Your task to perform on an android device: Add razer blade to the cart on bestbuy.com, then select checkout. Image 0: 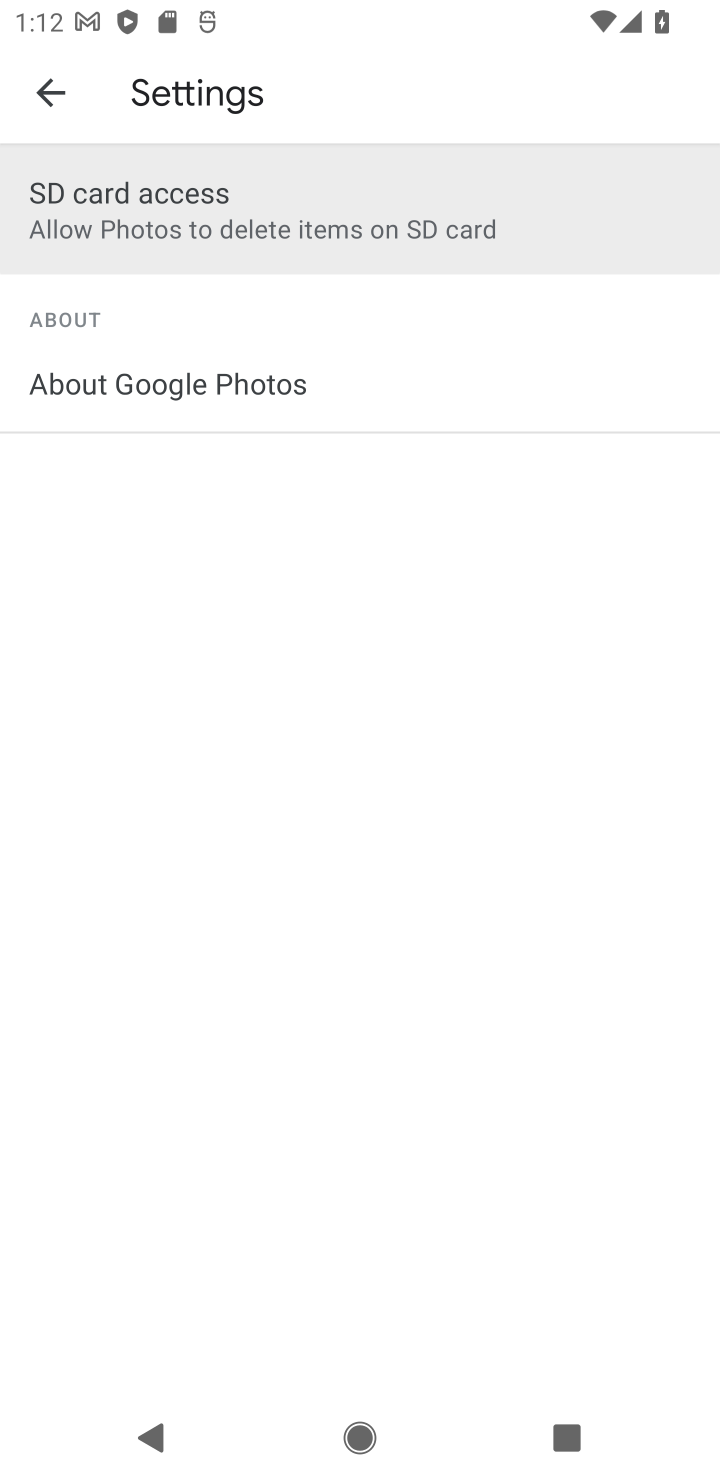
Step 0: press home button
Your task to perform on an android device: Add razer blade to the cart on bestbuy.com, then select checkout. Image 1: 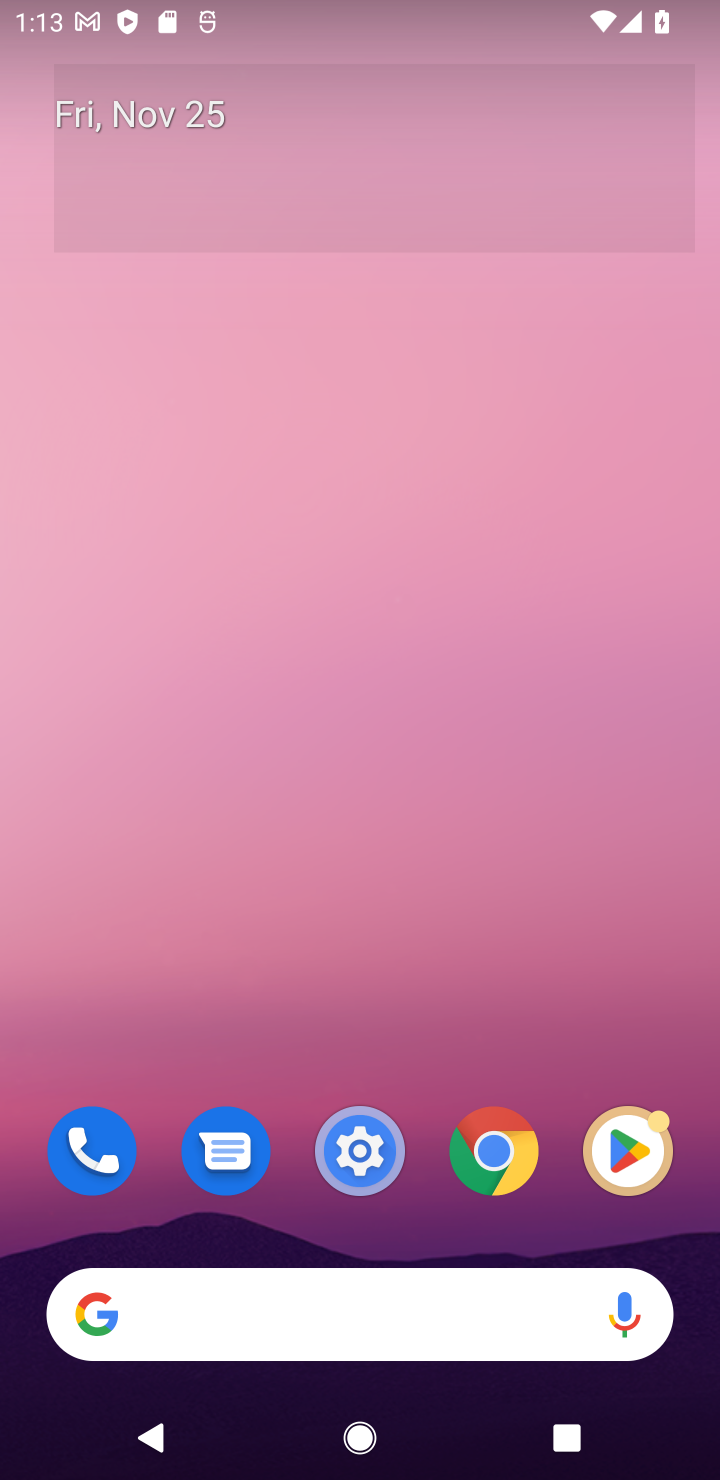
Step 1: click (351, 1311)
Your task to perform on an android device: Add razer blade to the cart on bestbuy.com, then select checkout. Image 2: 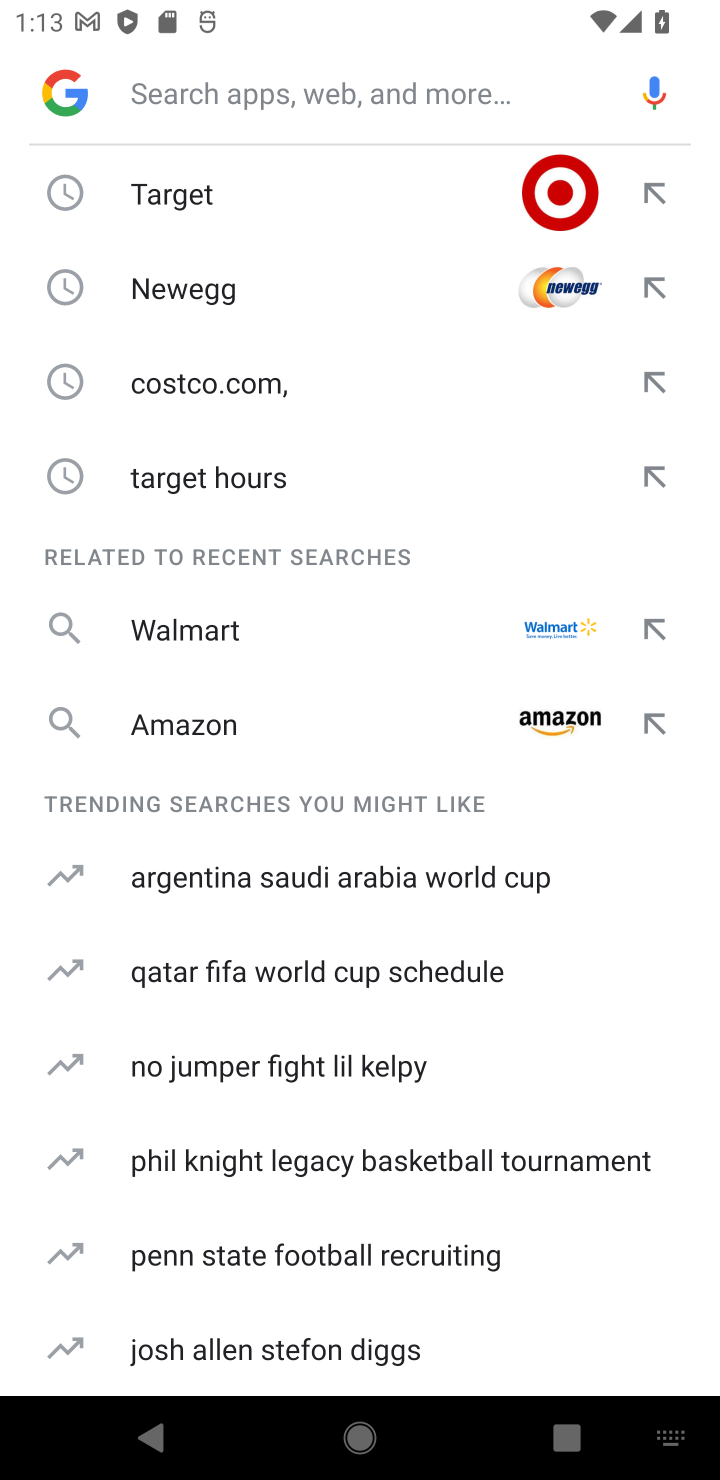
Step 2: type ""
Your task to perform on an android device: Add razer blade to the cart on bestbuy.com, then select checkout. Image 3: 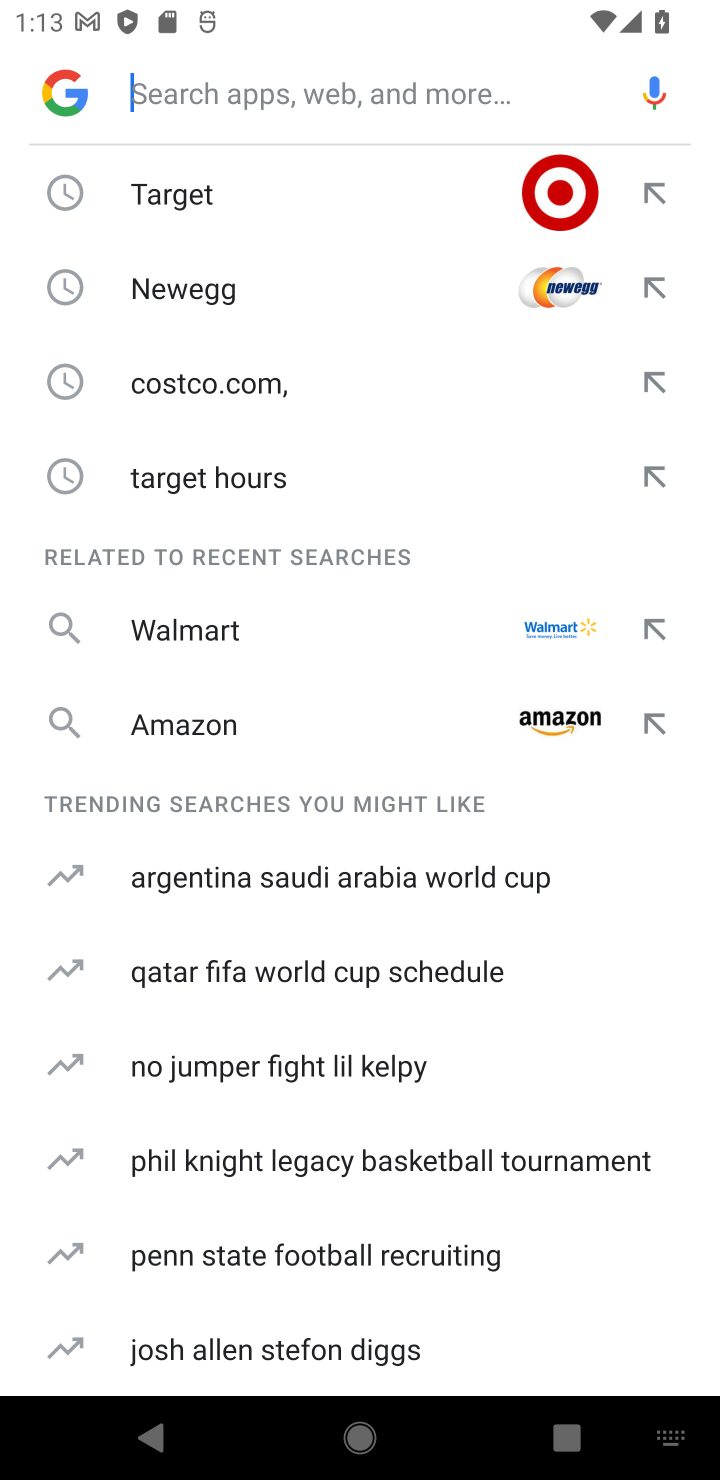
Step 3: type "bestbuy"
Your task to perform on an android device: Add razer blade to the cart on bestbuy.com, then select checkout. Image 4: 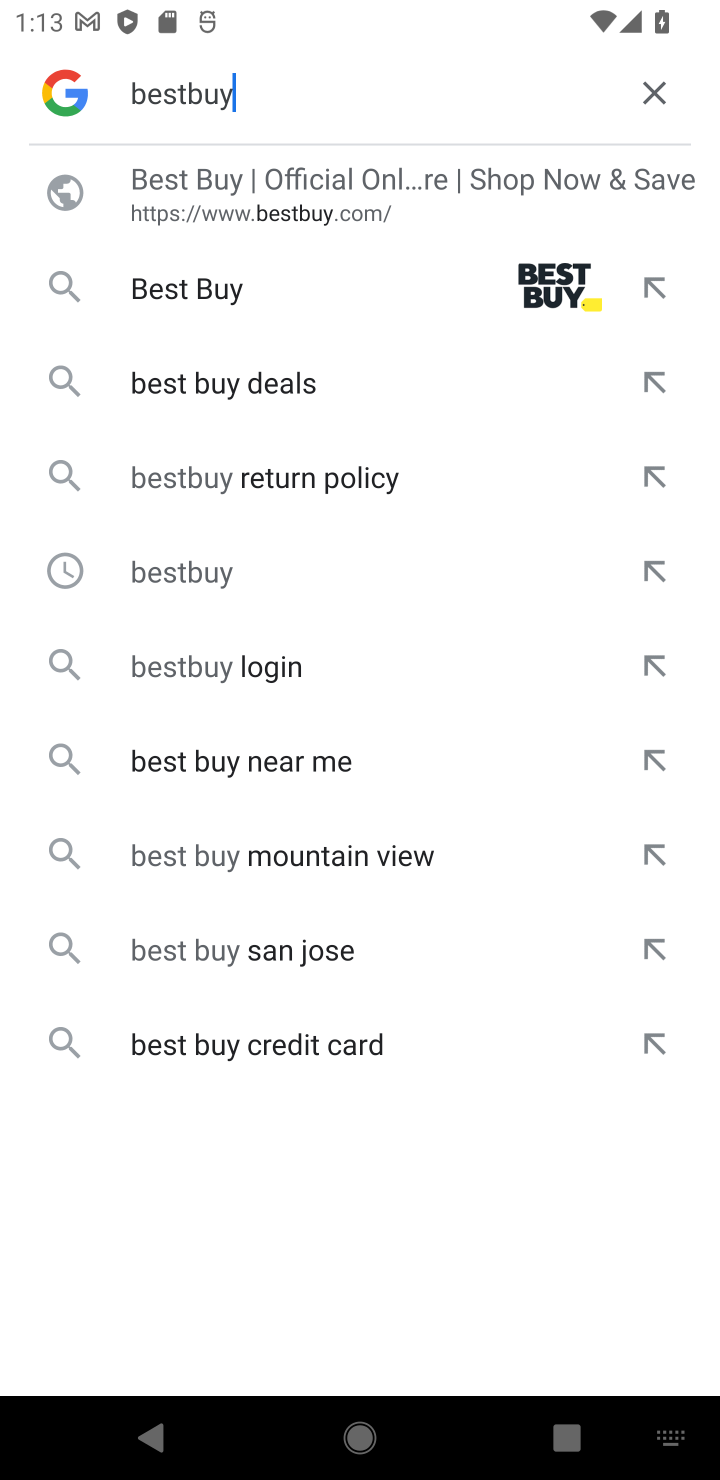
Step 4: click (301, 307)
Your task to perform on an android device: Add razer blade to the cart on bestbuy.com, then select checkout. Image 5: 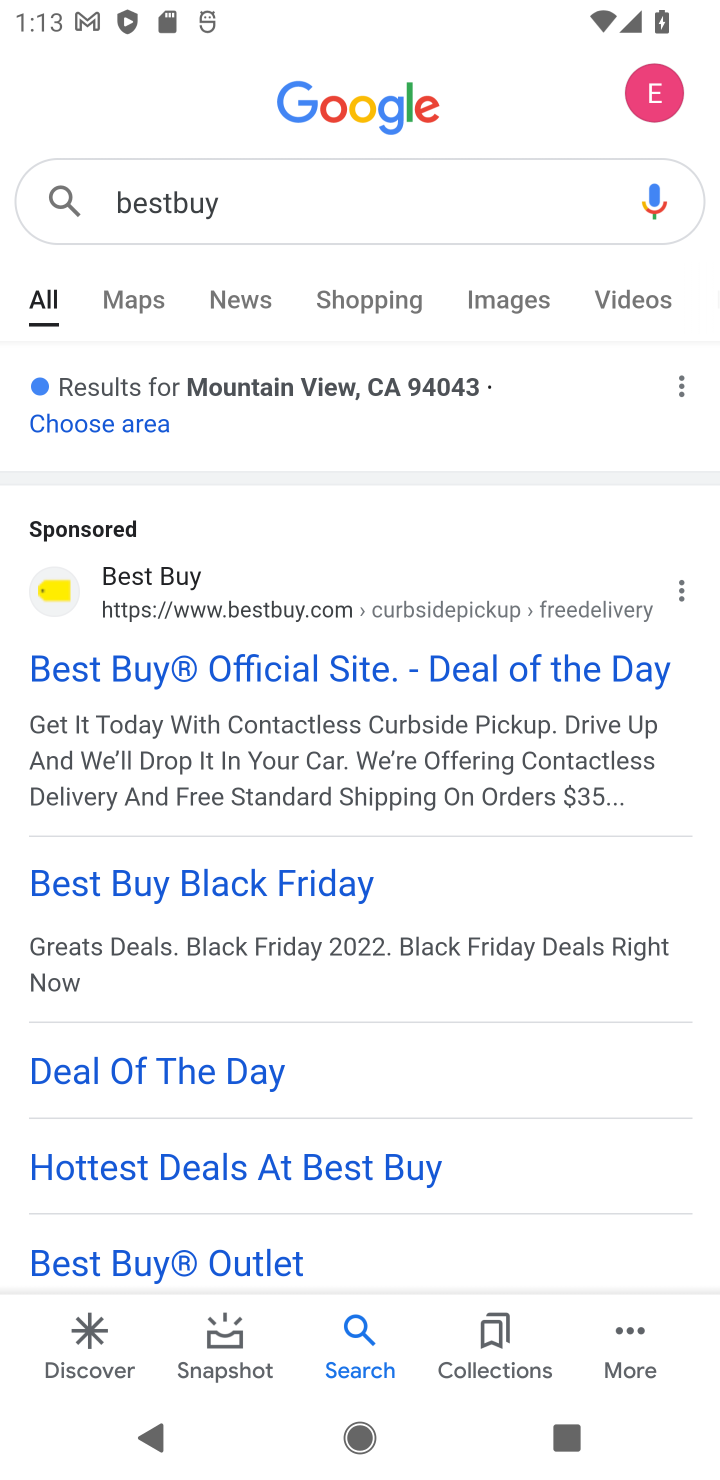
Step 5: click (285, 614)
Your task to perform on an android device: Add razer blade to the cart on bestbuy.com, then select checkout. Image 6: 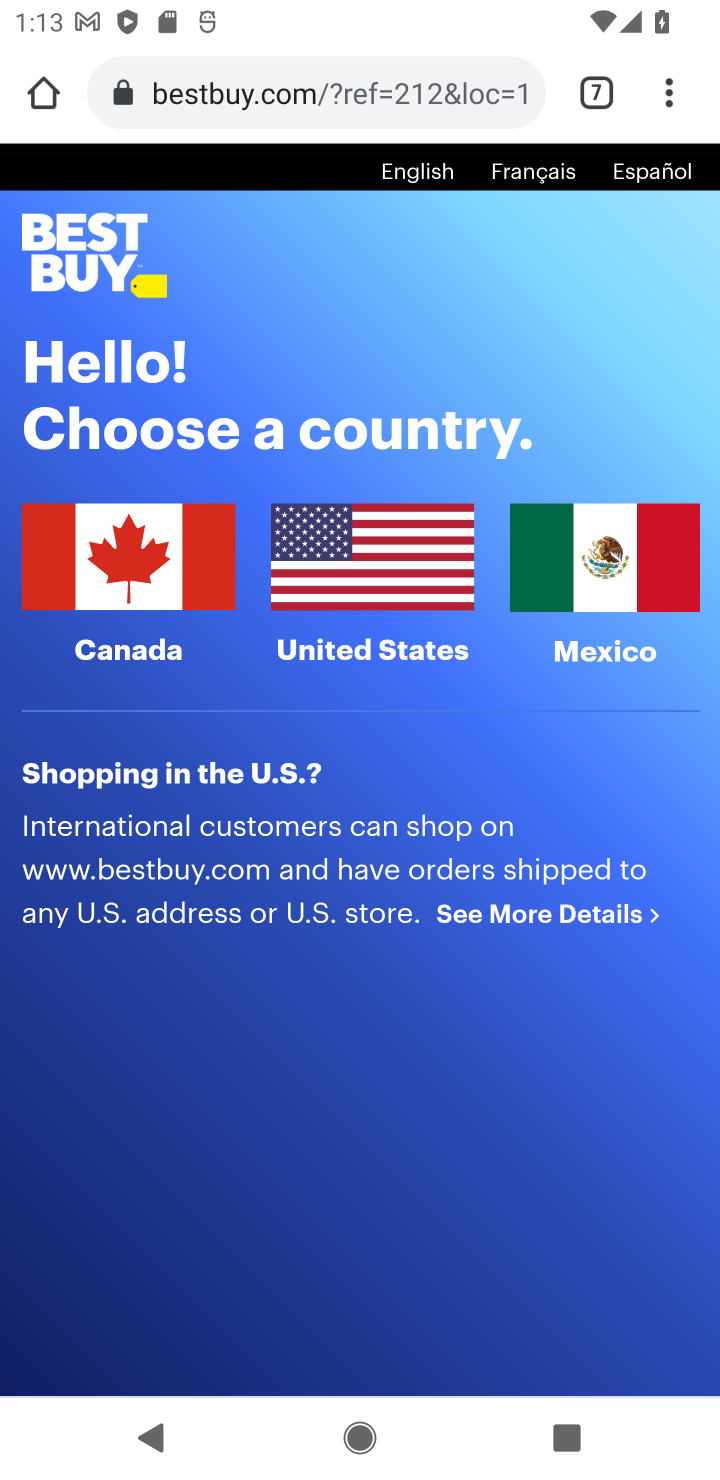
Step 6: click (157, 606)
Your task to perform on an android device: Add razer blade to the cart on bestbuy.com, then select checkout. Image 7: 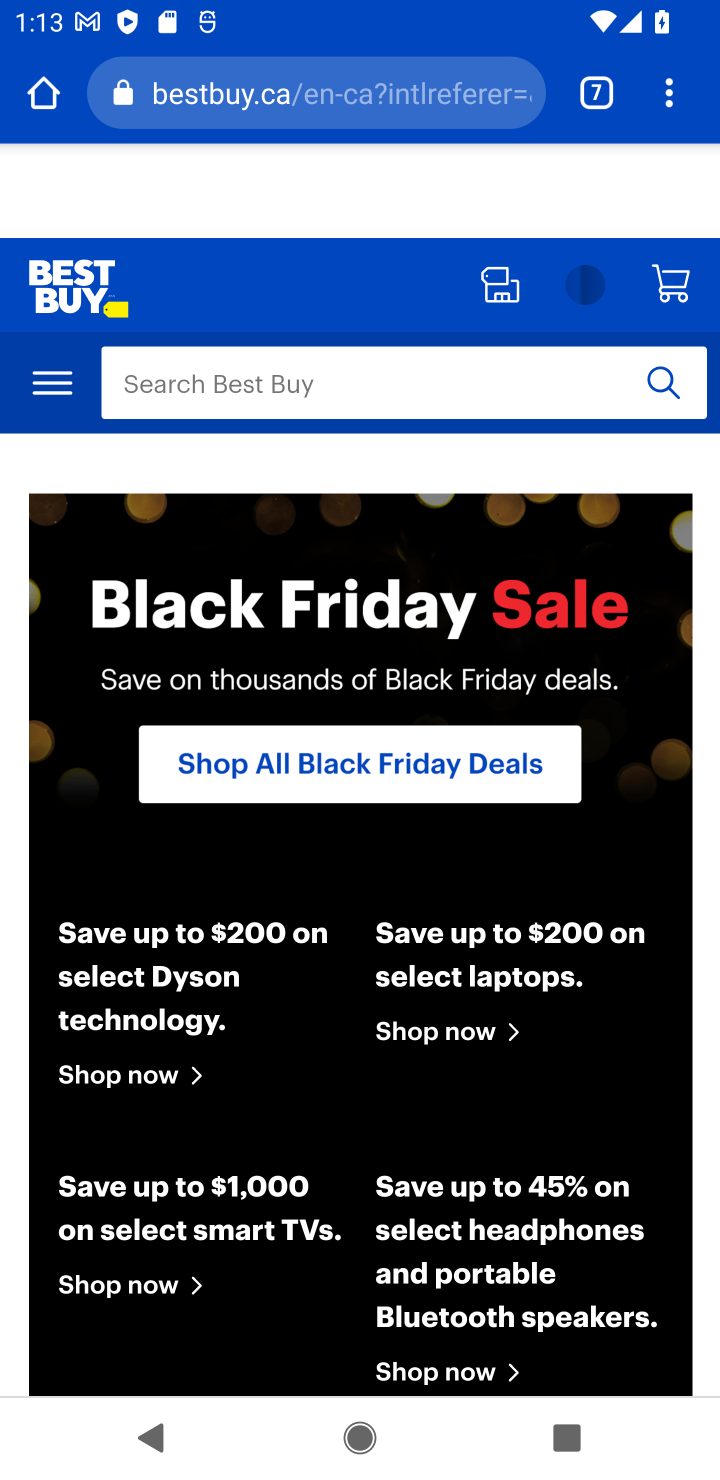
Step 7: click (362, 376)
Your task to perform on an android device: Add razer blade to the cart on bestbuy.com, then select checkout. Image 8: 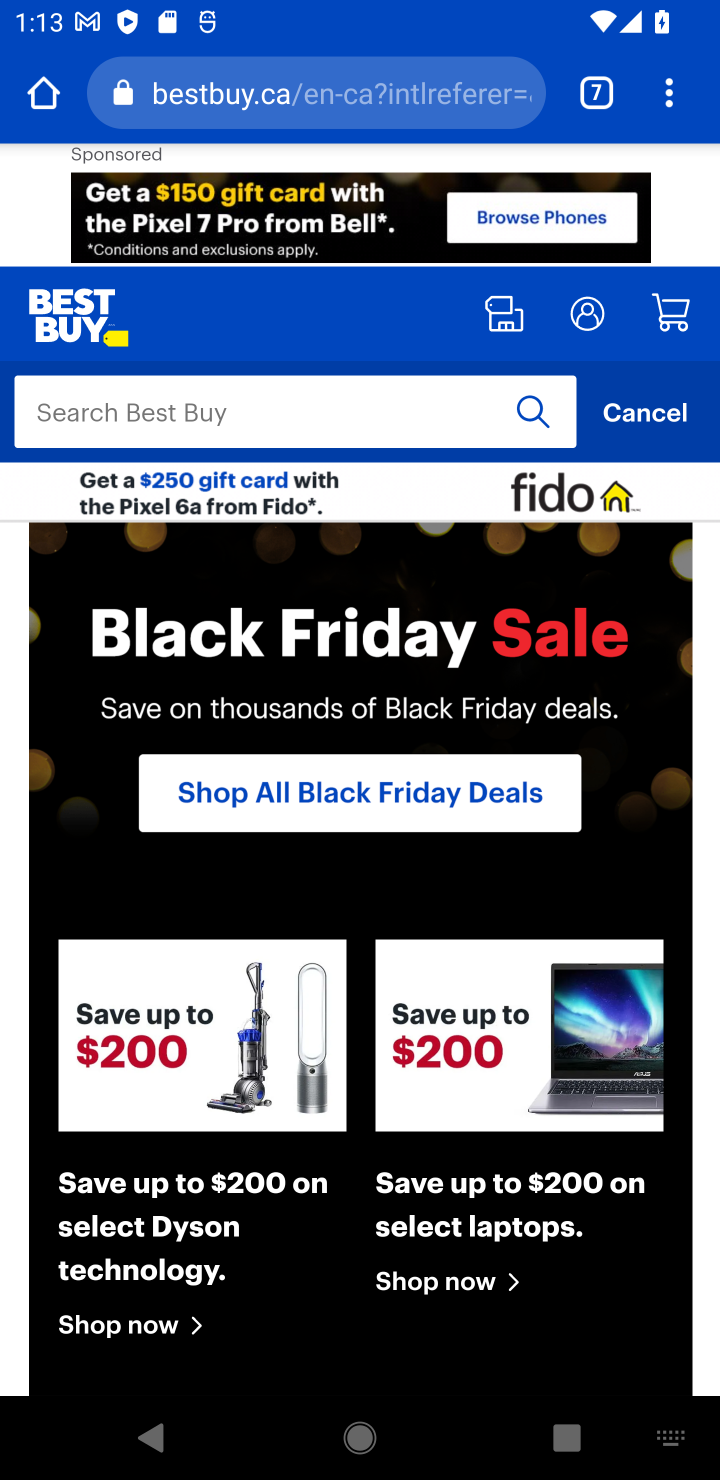
Step 8: type "razer blade"
Your task to perform on an android device: Add razer blade to the cart on bestbuy.com, then select checkout. Image 9: 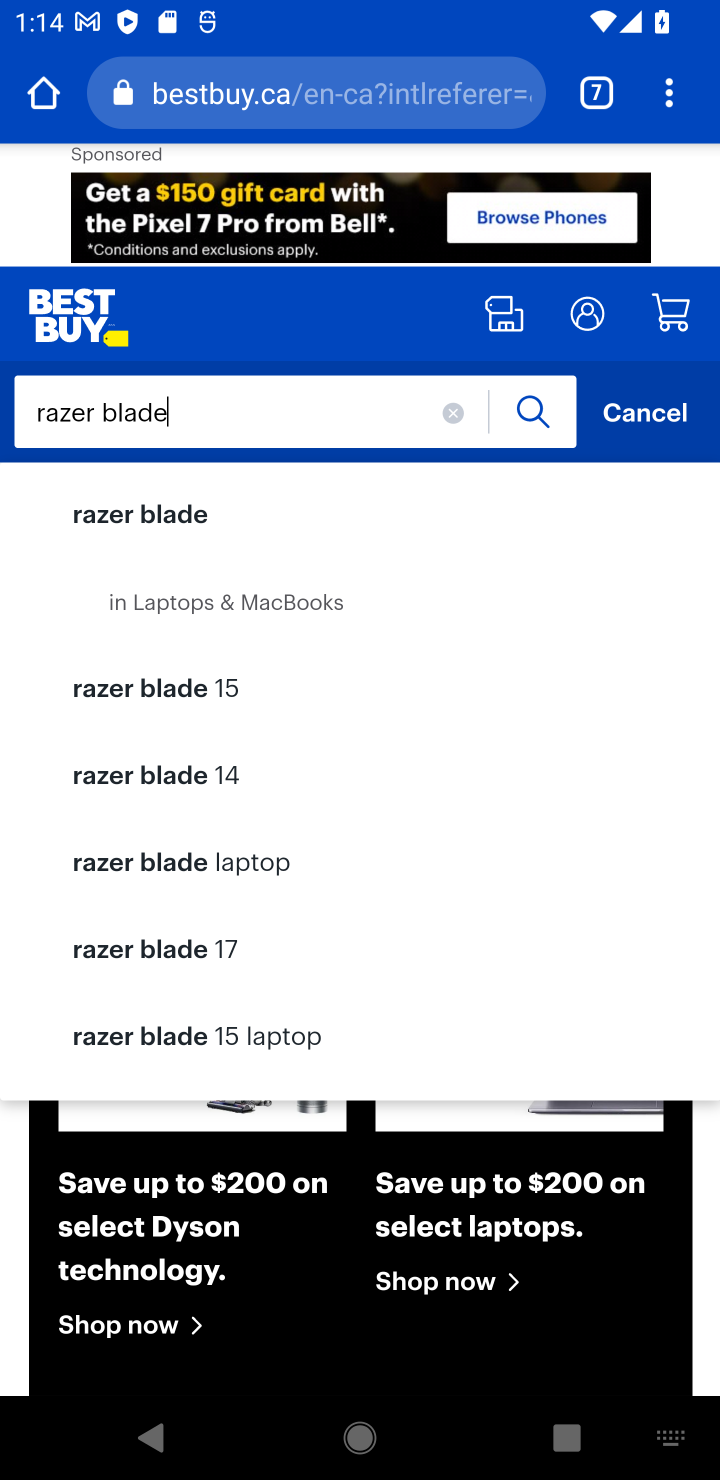
Step 9: click (190, 521)
Your task to perform on an android device: Add razer blade to the cart on bestbuy.com, then select checkout. Image 10: 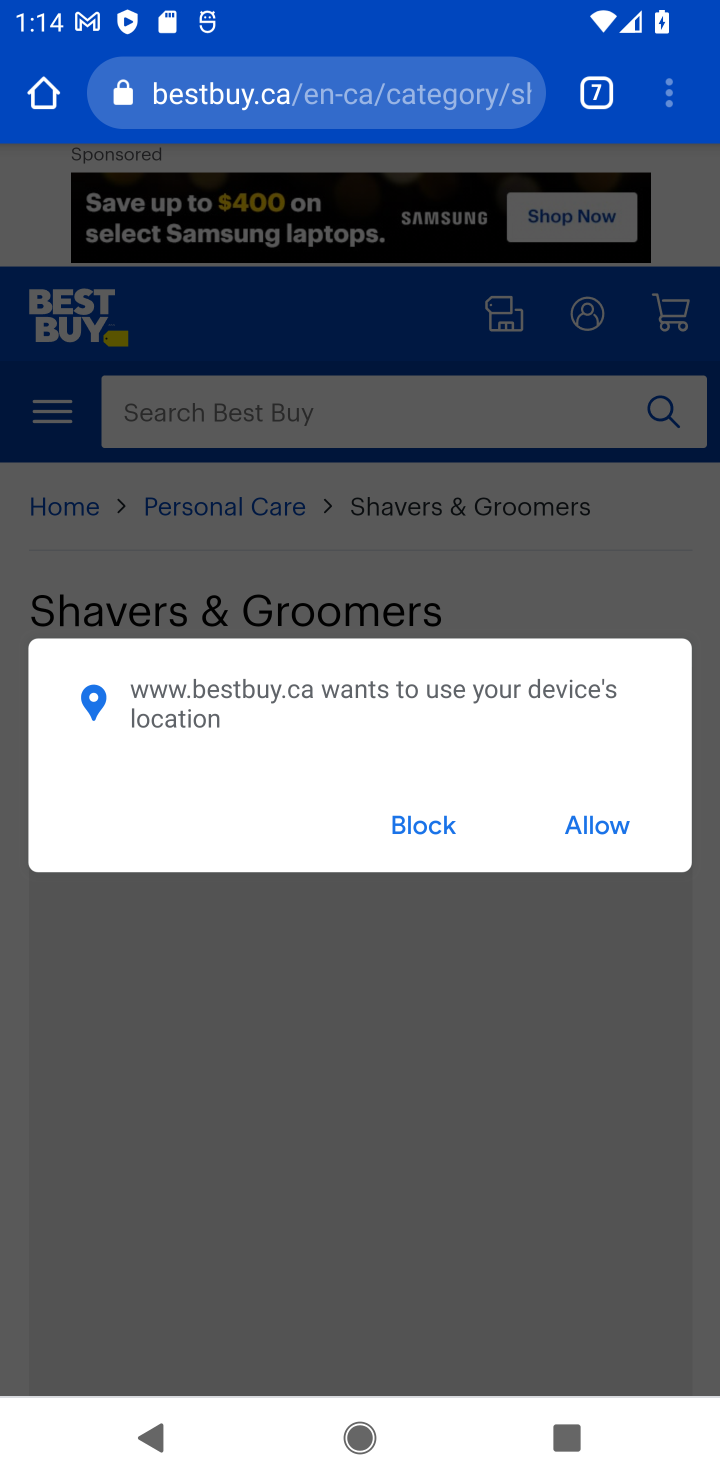
Step 10: click (590, 818)
Your task to perform on an android device: Add razer blade to the cart on bestbuy.com, then select checkout. Image 11: 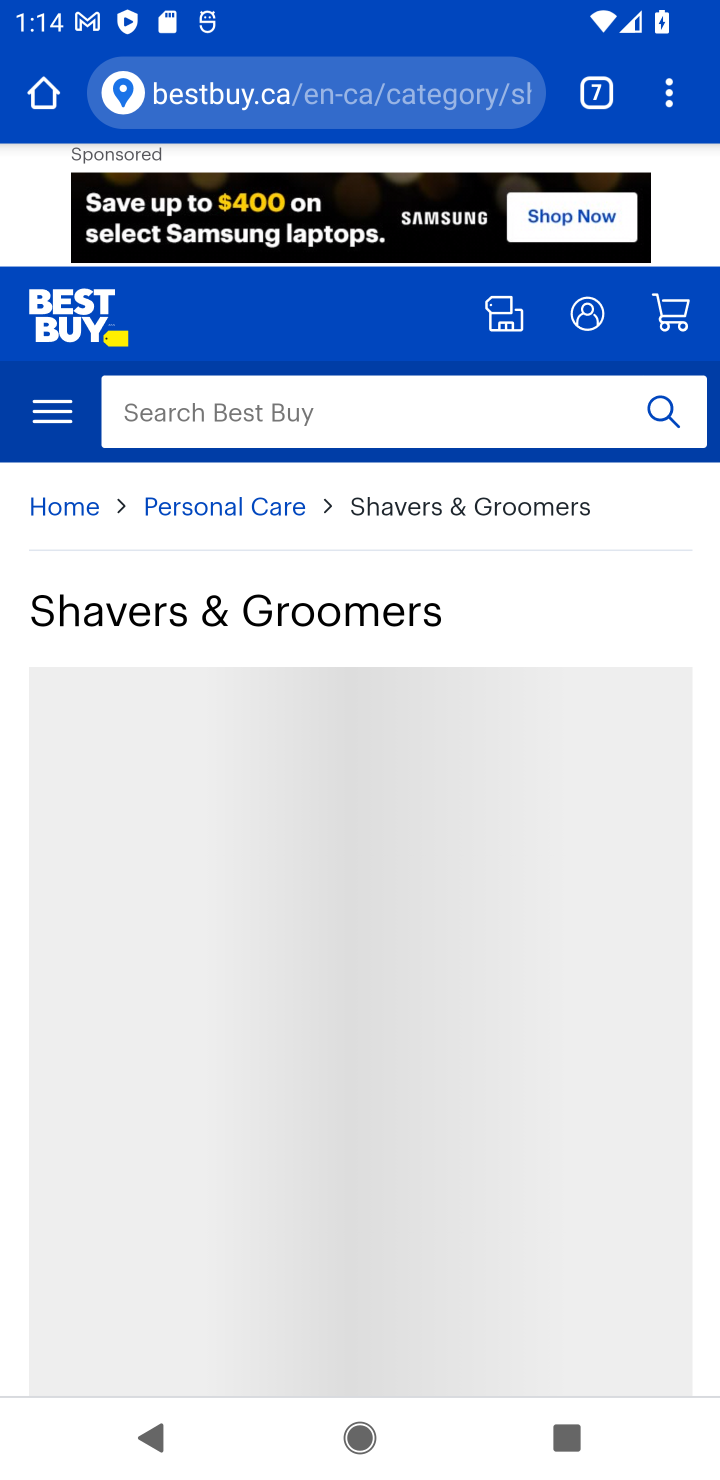
Step 11: click (352, 416)
Your task to perform on an android device: Add razer blade to the cart on bestbuy.com, then select checkout. Image 12: 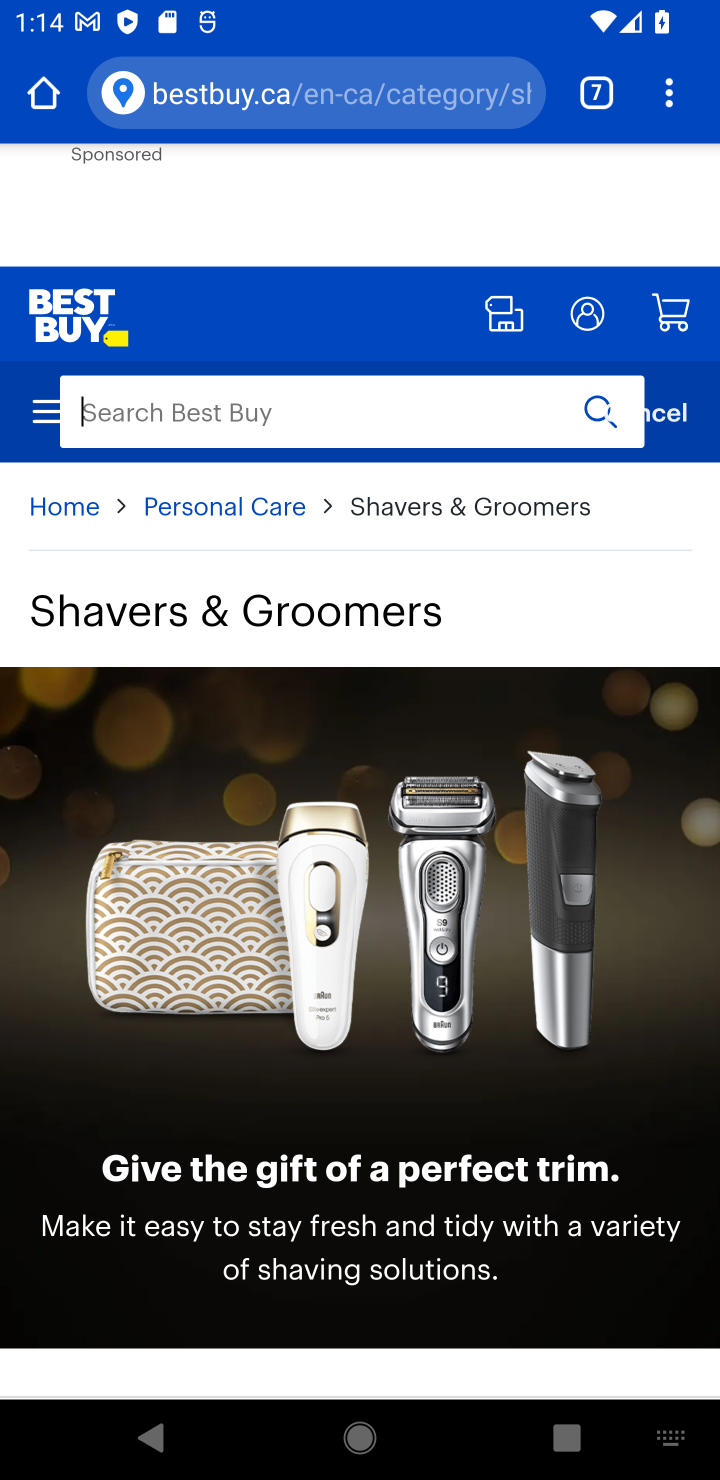
Step 12: task complete